Your task to perform on an android device: allow notifications from all sites in the chrome app Image 0: 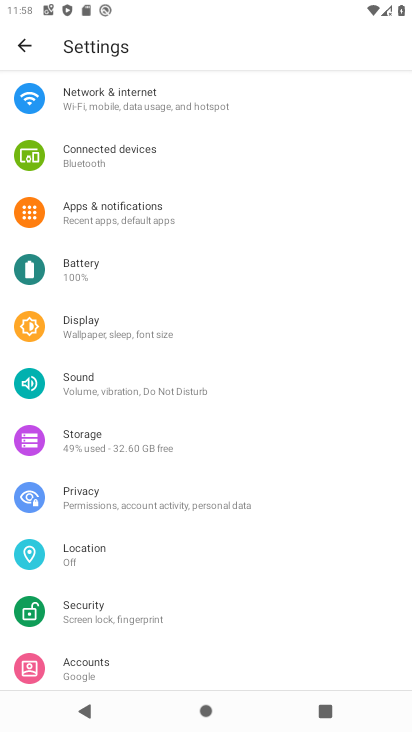
Step 0: press home button
Your task to perform on an android device: allow notifications from all sites in the chrome app Image 1: 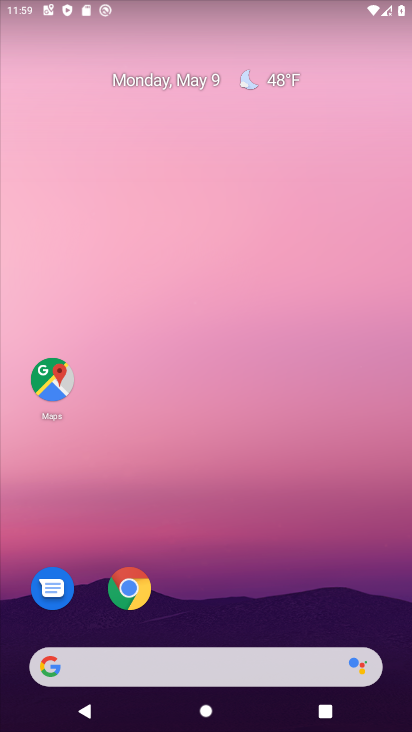
Step 1: drag from (285, 594) to (282, 221)
Your task to perform on an android device: allow notifications from all sites in the chrome app Image 2: 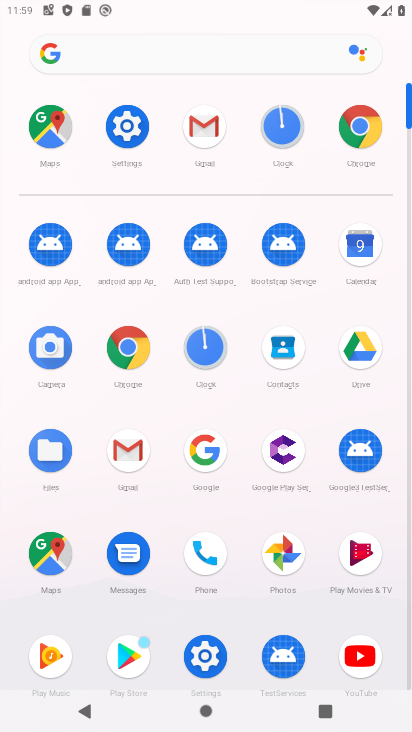
Step 2: click (200, 652)
Your task to perform on an android device: allow notifications from all sites in the chrome app Image 3: 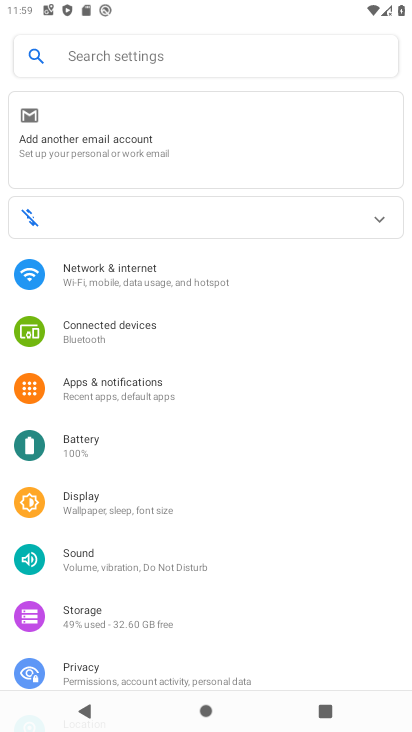
Step 3: click (207, 714)
Your task to perform on an android device: allow notifications from all sites in the chrome app Image 4: 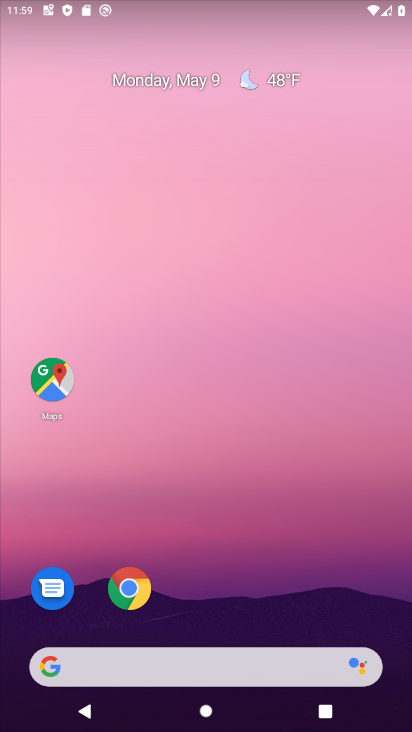
Step 4: click (121, 597)
Your task to perform on an android device: allow notifications from all sites in the chrome app Image 5: 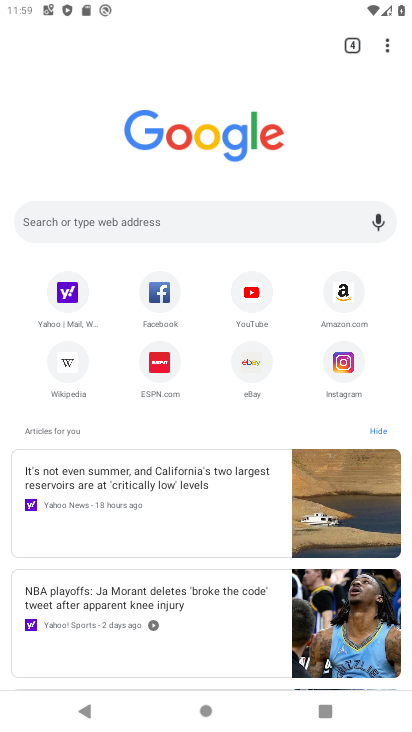
Step 5: click (393, 36)
Your task to perform on an android device: allow notifications from all sites in the chrome app Image 6: 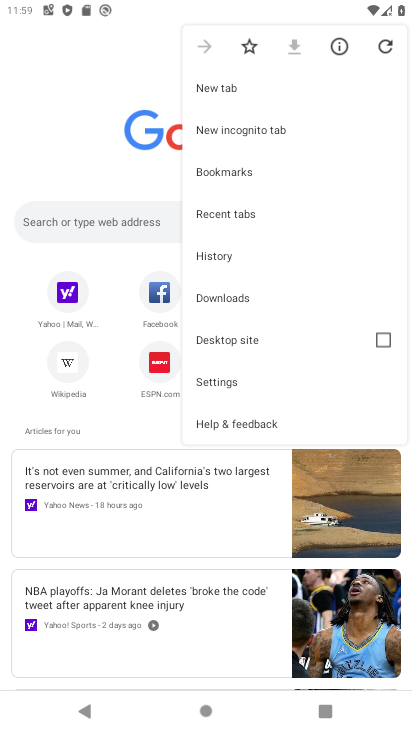
Step 6: click (220, 388)
Your task to perform on an android device: allow notifications from all sites in the chrome app Image 7: 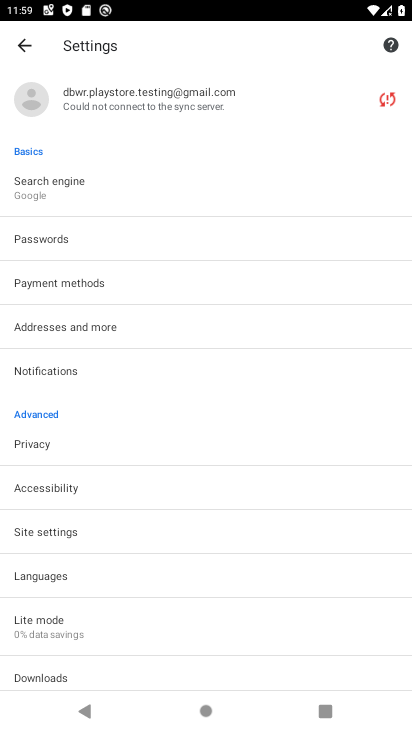
Step 7: click (129, 542)
Your task to perform on an android device: allow notifications from all sites in the chrome app Image 8: 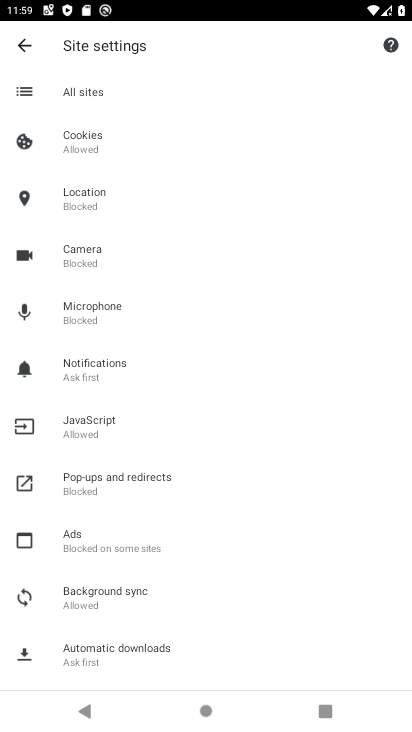
Step 8: click (109, 147)
Your task to perform on an android device: allow notifications from all sites in the chrome app Image 9: 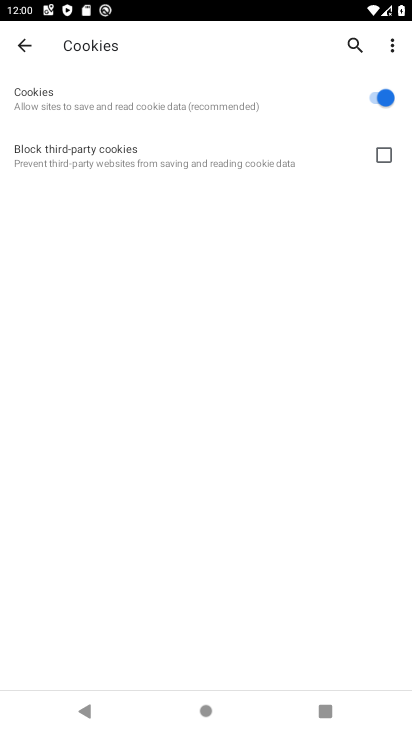
Step 9: click (21, 49)
Your task to perform on an android device: allow notifications from all sites in the chrome app Image 10: 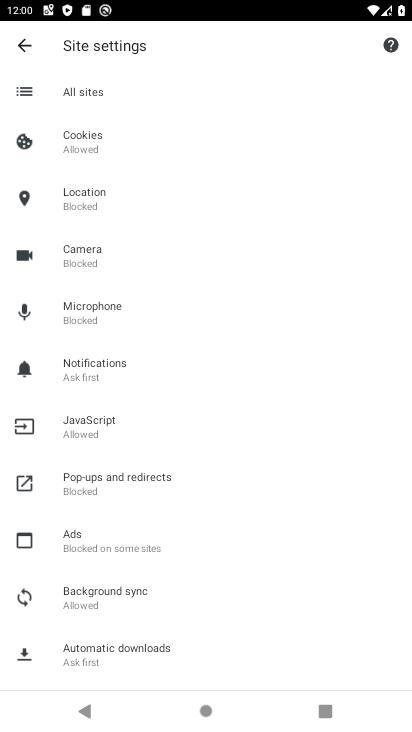
Step 10: task complete